Your task to perform on an android device: Open Google Maps and go to "Timeline" Image 0: 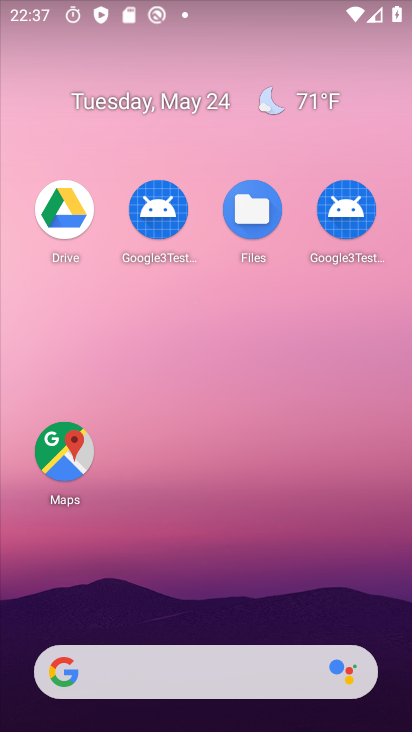
Step 0: drag from (234, 620) to (144, 35)
Your task to perform on an android device: Open Google Maps and go to "Timeline" Image 1: 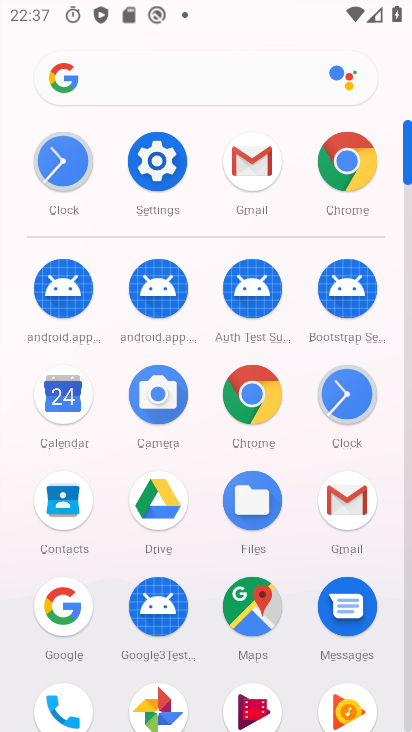
Step 1: click (251, 599)
Your task to perform on an android device: Open Google Maps and go to "Timeline" Image 2: 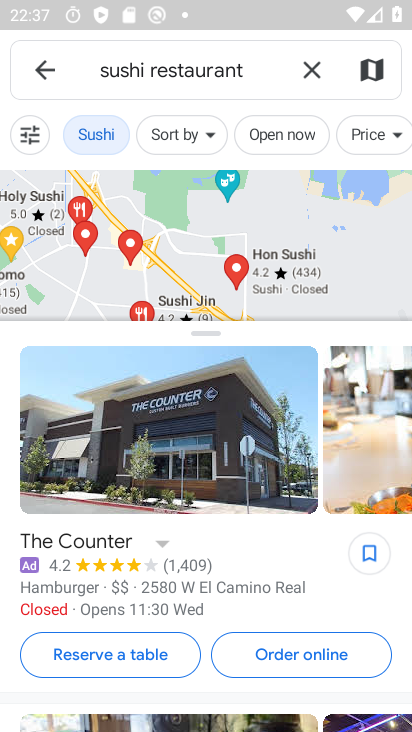
Step 2: click (38, 66)
Your task to perform on an android device: Open Google Maps and go to "Timeline" Image 3: 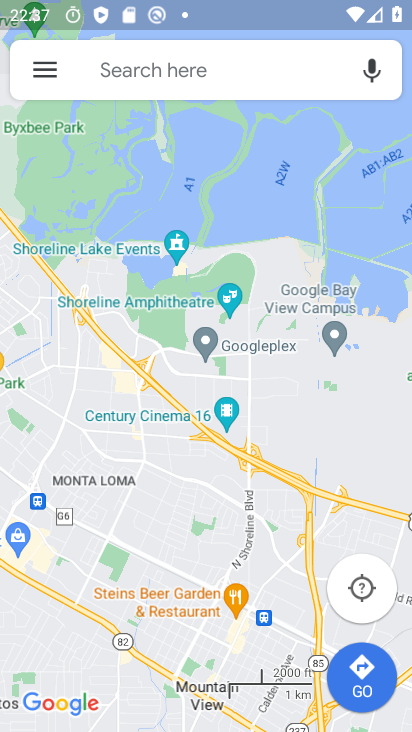
Step 3: click (38, 66)
Your task to perform on an android device: Open Google Maps and go to "Timeline" Image 4: 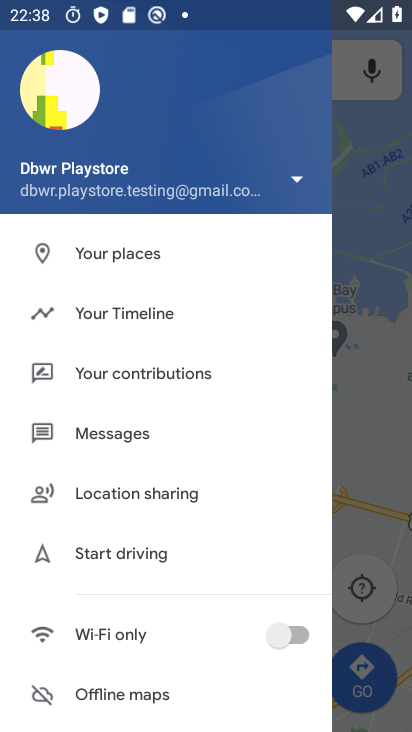
Step 4: click (133, 293)
Your task to perform on an android device: Open Google Maps and go to "Timeline" Image 5: 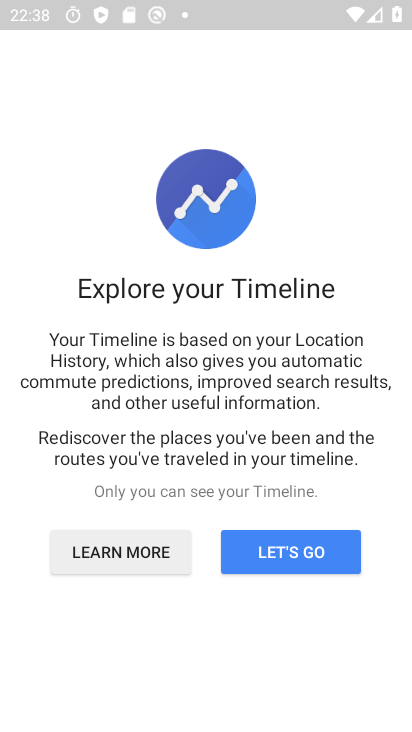
Step 5: click (320, 557)
Your task to perform on an android device: Open Google Maps and go to "Timeline" Image 6: 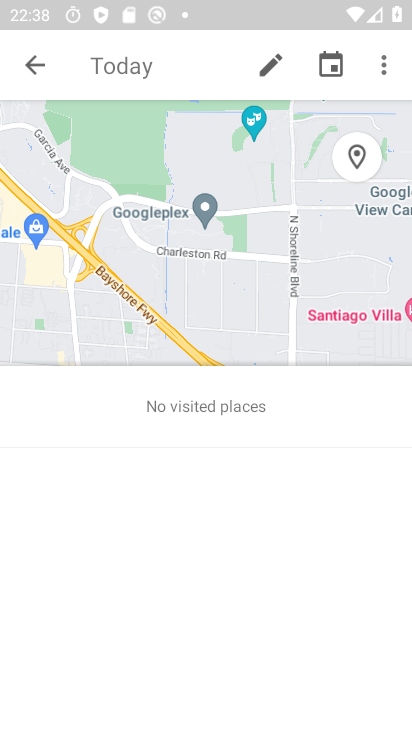
Step 6: task complete